Your task to perform on an android device: toggle translation in the chrome app Image 0: 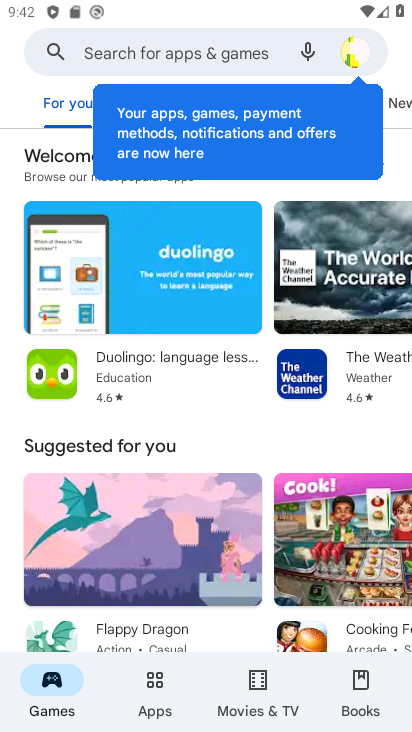
Step 0: press home button
Your task to perform on an android device: toggle translation in the chrome app Image 1: 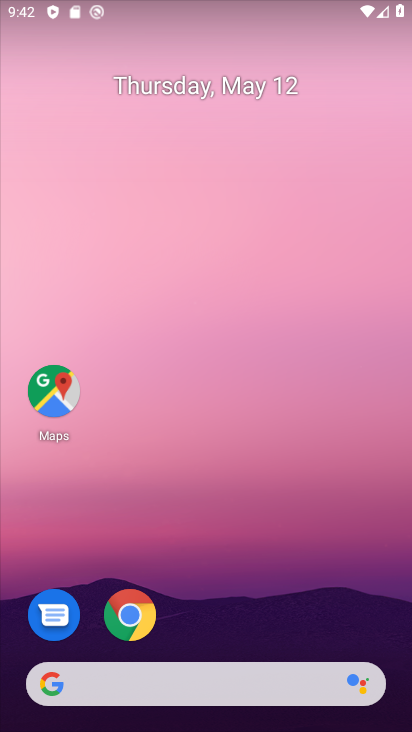
Step 1: click (124, 613)
Your task to perform on an android device: toggle translation in the chrome app Image 2: 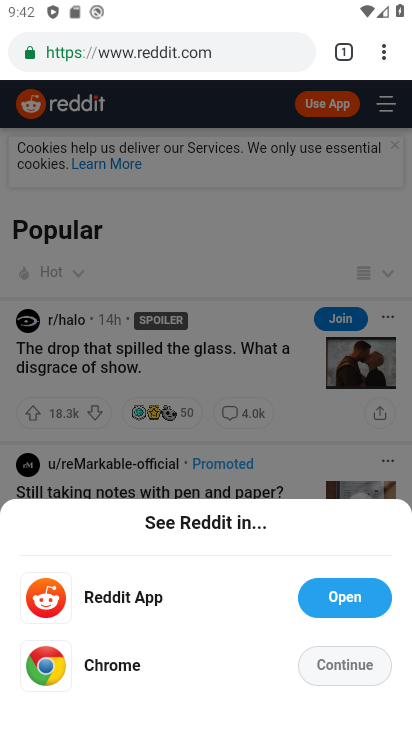
Step 2: click (384, 56)
Your task to perform on an android device: toggle translation in the chrome app Image 3: 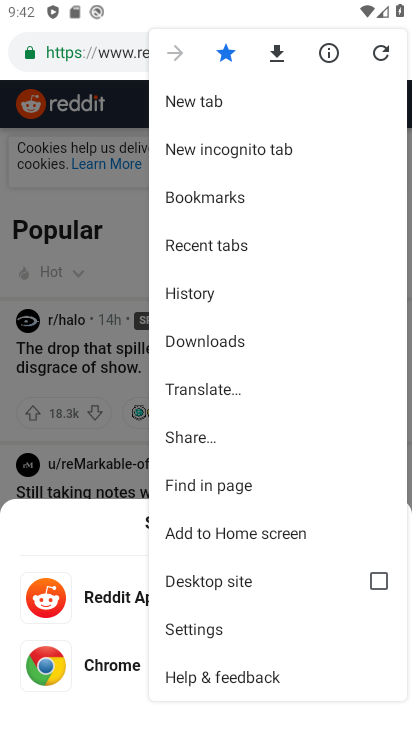
Step 3: click (181, 628)
Your task to perform on an android device: toggle translation in the chrome app Image 4: 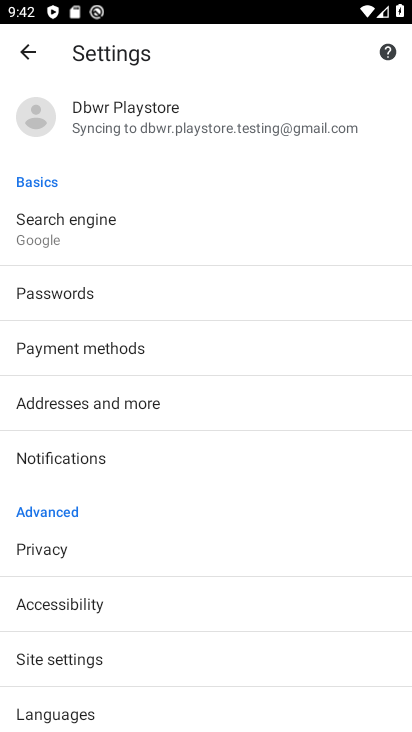
Step 4: click (69, 711)
Your task to perform on an android device: toggle translation in the chrome app Image 5: 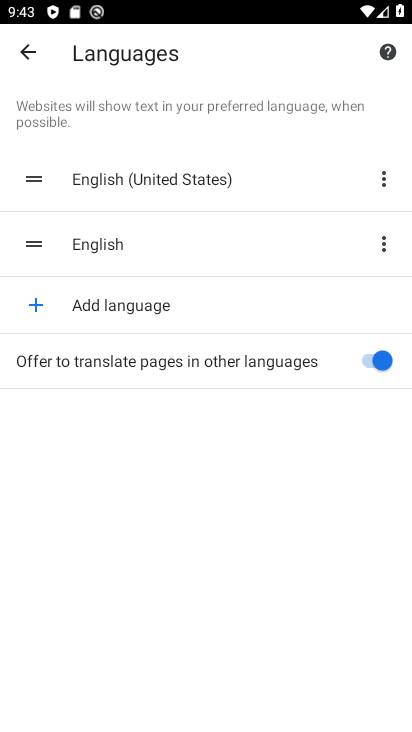
Step 5: click (368, 362)
Your task to perform on an android device: toggle translation in the chrome app Image 6: 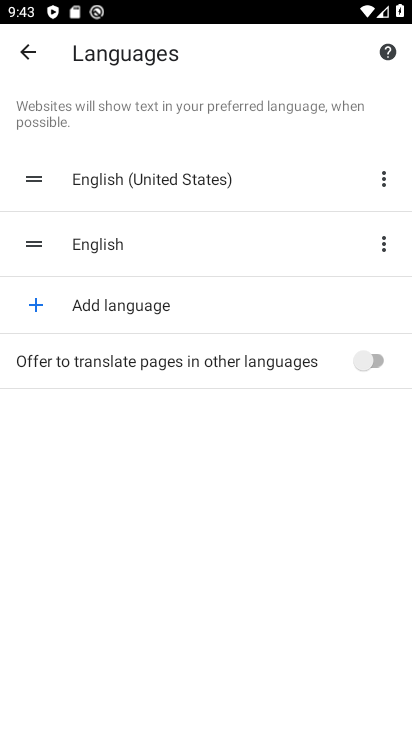
Step 6: task complete